Your task to perform on an android device: Search for seafood restaurants on Google Maps Image 0: 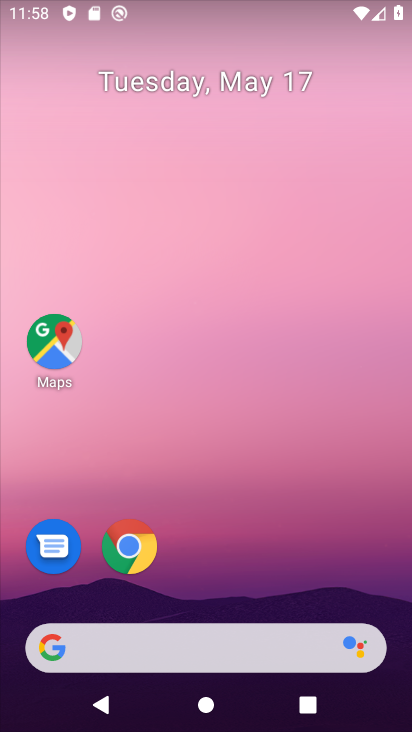
Step 0: click (69, 340)
Your task to perform on an android device: Search for seafood restaurants on Google Maps Image 1: 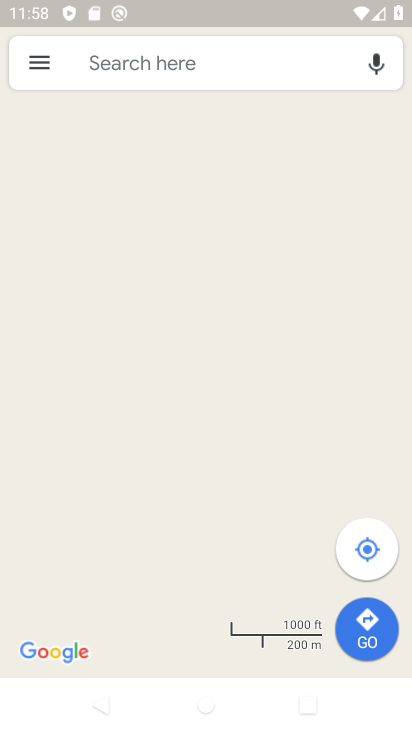
Step 1: click (138, 78)
Your task to perform on an android device: Search for seafood restaurants on Google Maps Image 2: 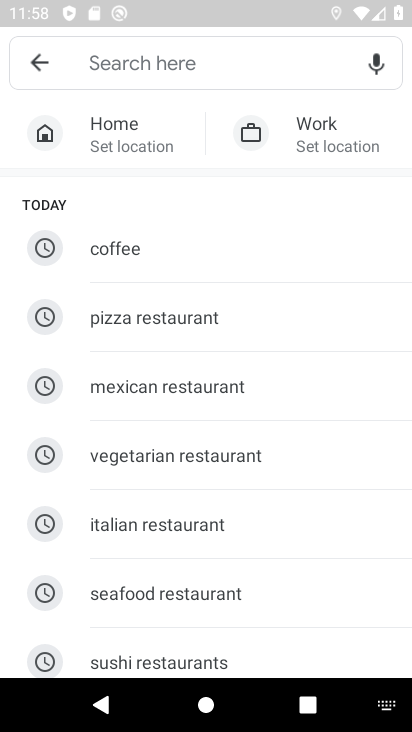
Step 2: type "seafood restaurants"
Your task to perform on an android device: Search for seafood restaurants on Google Maps Image 3: 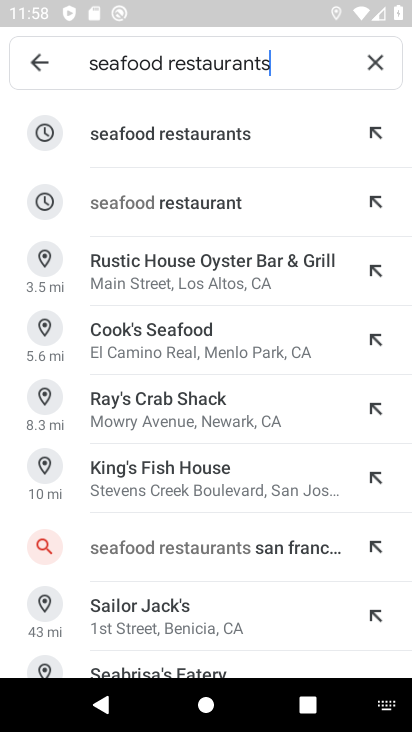
Step 3: click (181, 148)
Your task to perform on an android device: Search for seafood restaurants on Google Maps Image 4: 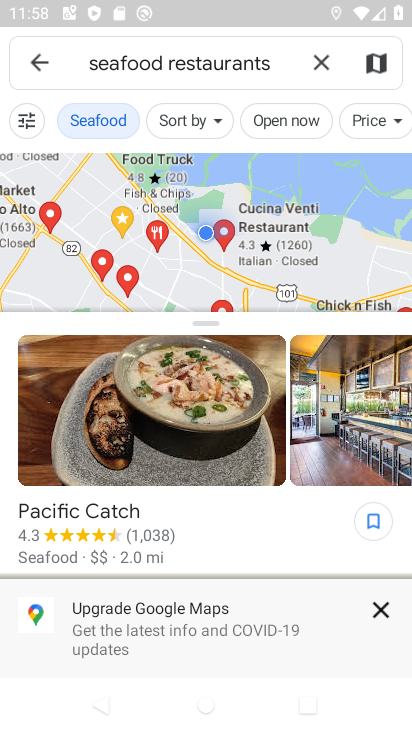
Step 4: click (380, 615)
Your task to perform on an android device: Search for seafood restaurants on Google Maps Image 5: 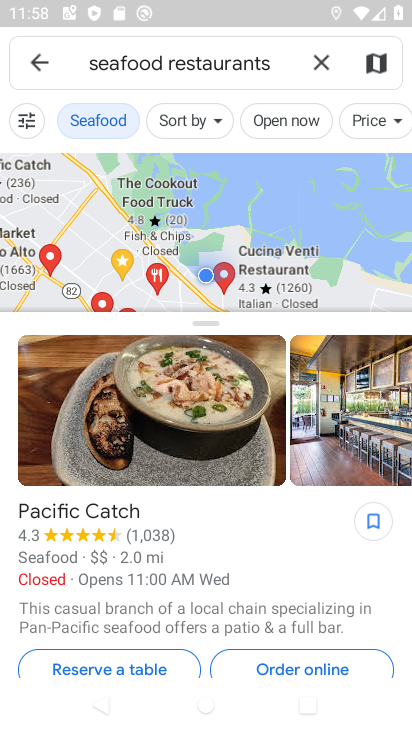
Step 5: task complete